Your task to perform on an android device: Go to Yahoo.com Image 0: 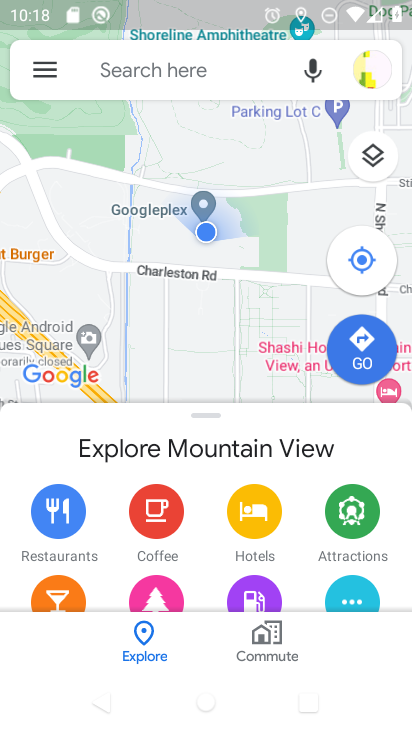
Step 0: press home button
Your task to perform on an android device: Go to Yahoo.com Image 1: 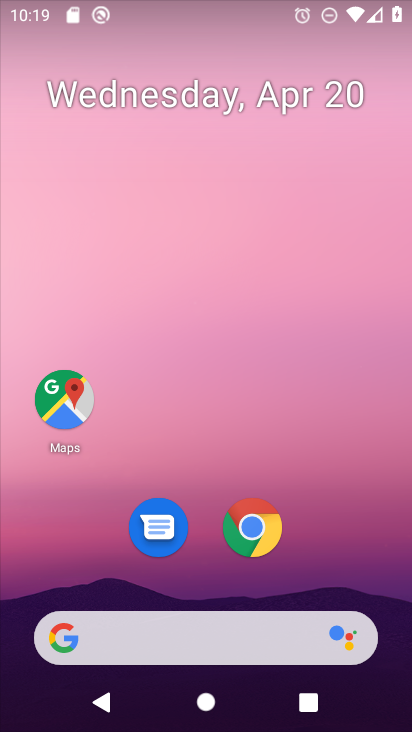
Step 1: click (258, 526)
Your task to perform on an android device: Go to Yahoo.com Image 2: 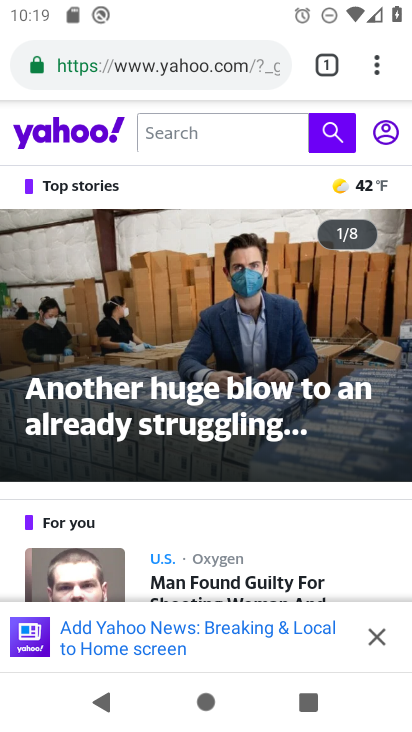
Step 2: task complete